Your task to perform on an android device: Open Google Maps and go to "Timeline" Image 0: 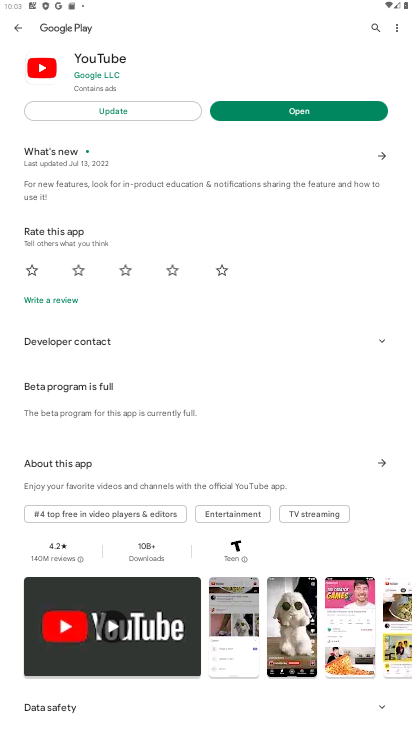
Step 0: drag from (15, 676) to (117, 226)
Your task to perform on an android device: Open Google Maps and go to "Timeline" Image 1: 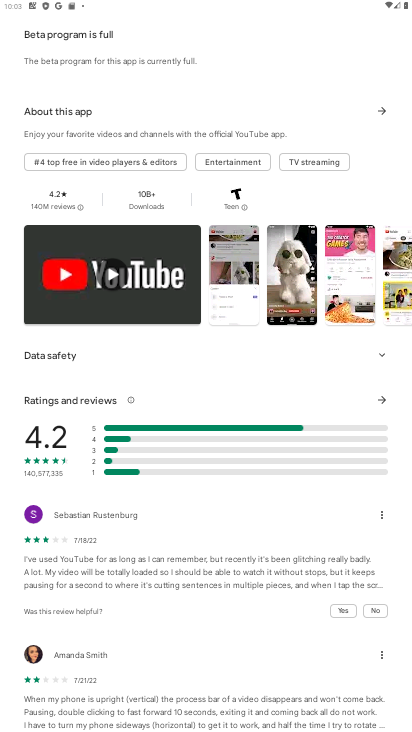
Step 1: press home button
Your task to perform on an android device: Open Google Maps and go to "Timeline" Image 2: 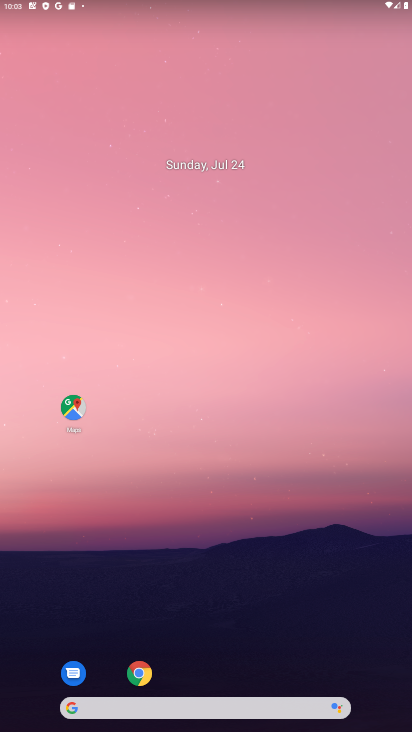
Step 2: click (74, 408)
Your task to perform on an android device: Open Google Maps and go to "Timeline" Image 3: 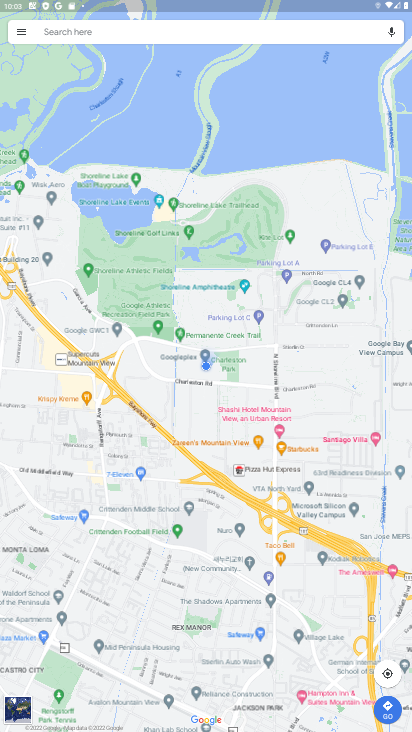
Step 3: click (23, 28)
Your task to perform on an android device: Open Google Maps and go to "Timeline" Image 4: 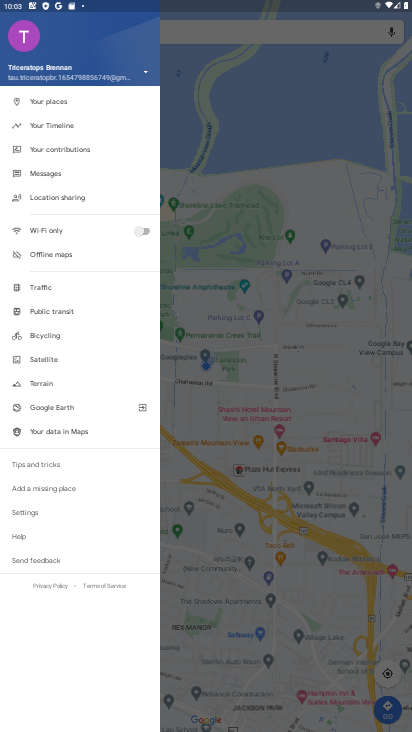
Step 4: click (46, 126)
Your task to perform on an android device: Open Google Maps and go to "Timeline" Image 5: 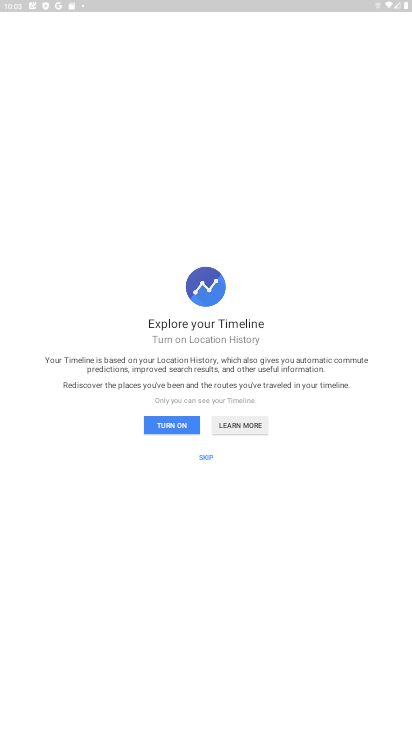
Step 5: task complete